Your task to perform on an android device: Open my contact list Image 0: 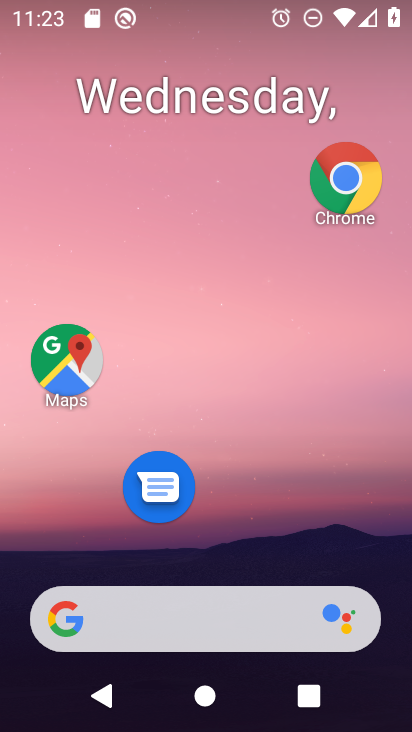
Step 0: drag from (217, 633) to (245, 182)
Your task to perform on an android device: Open my contact list Image 1: 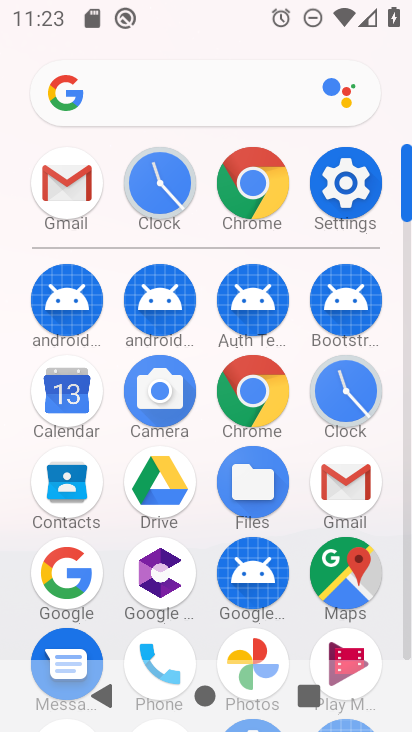
Step 1: click (73, 500)
Your task to perform on an android device: Open my contact list Image 2: 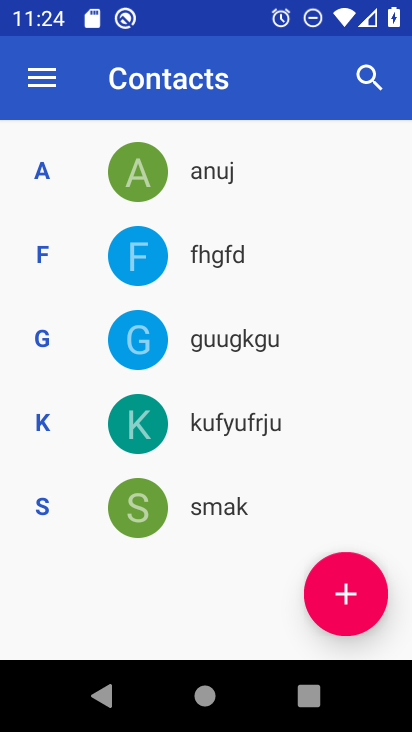
Step 2: task complete